Your task to perform on an android device: turn off javascript in the chrome app Image 0: 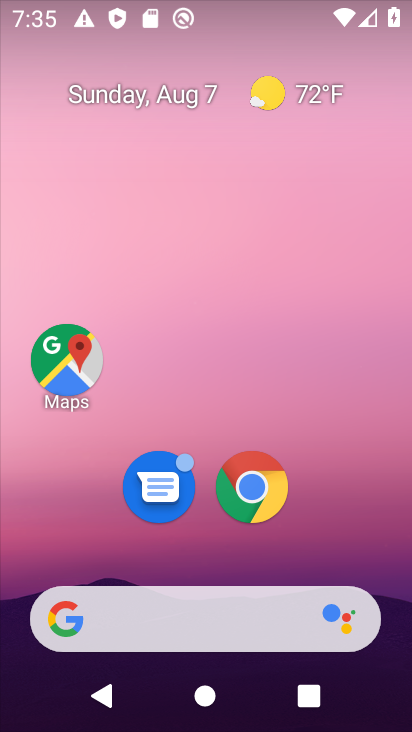
Step 0: click (260, 478)
Your task to perform on an android device: turn off javascript in the chrome app Image 1: 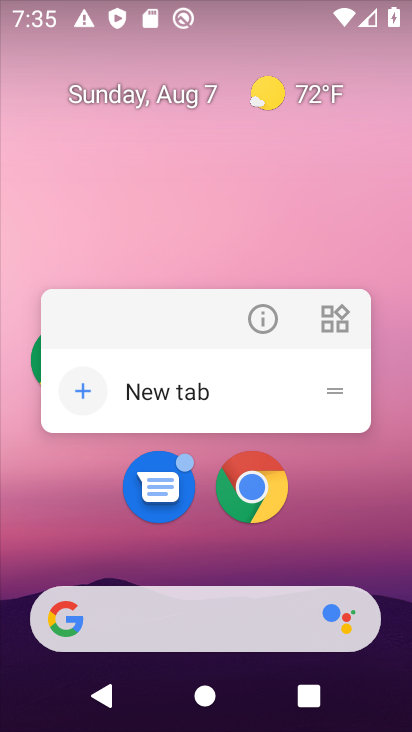
Step 1: click (251, 477)
Your task to perform on an android device: turn off javascript in the chrome app Image 2: 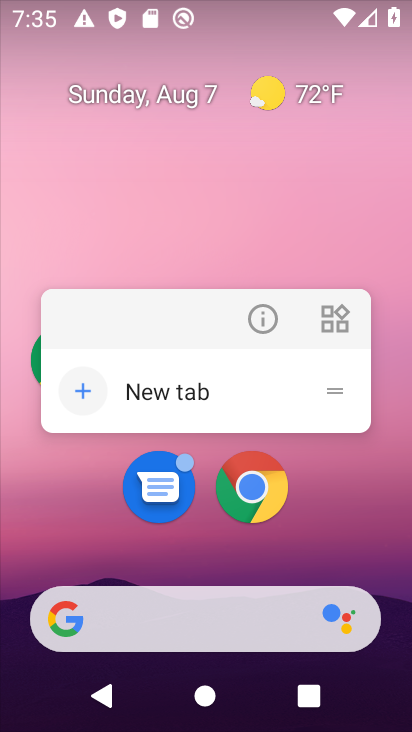
Step 2: click (251, 477)
Your task to perform on an android device: turn off javascript in the chrome app Image 3: 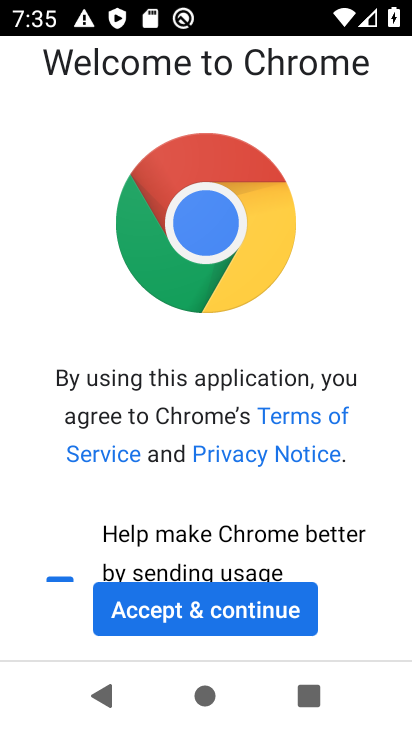
Step 3: click (195, 614)
Your task to perform on an android device: turn off javascript in the chrome app Image 4: 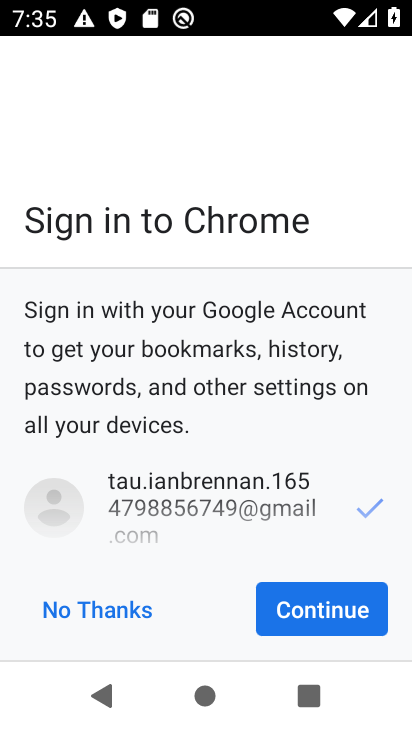
Step 4: click (297, 602)
Your task to perform on an android device: turn off javascript in the chrome app Image 5: 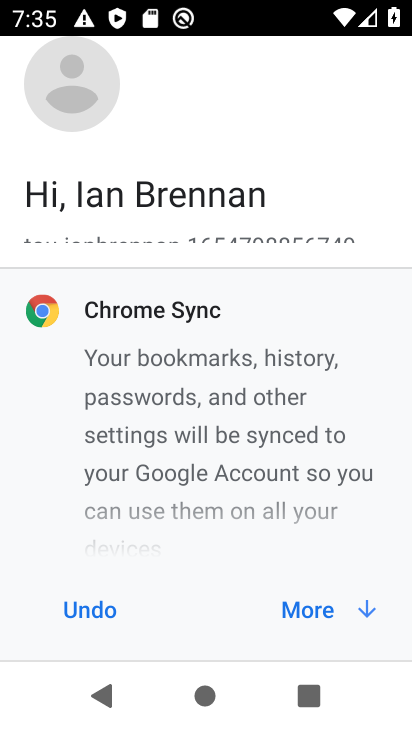
Step 5: click (325, 608)
Your task to perform on an android device: turn off javascript in the chrome app Image 6: 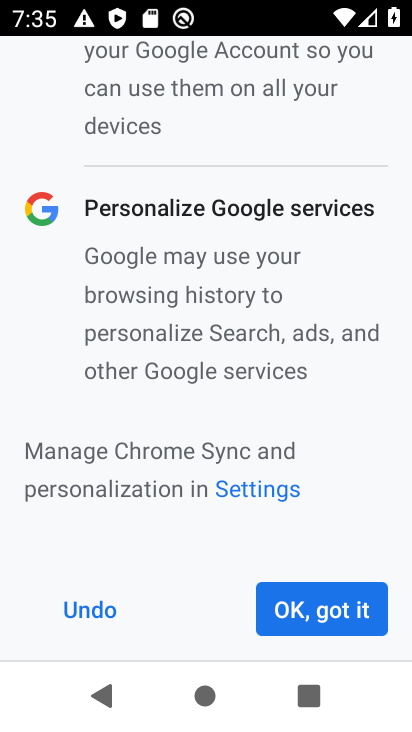
Step 6: click (350, 606)
Your task to perform on an android device: turn off javascript in the chrome app Image 7: 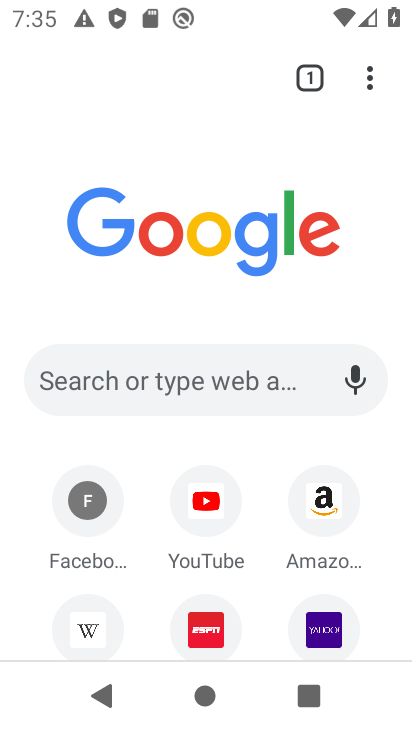
Step 7: click (372, 76)
Your task to perform on an android device: turn off javascript in the chrome app Image 8: 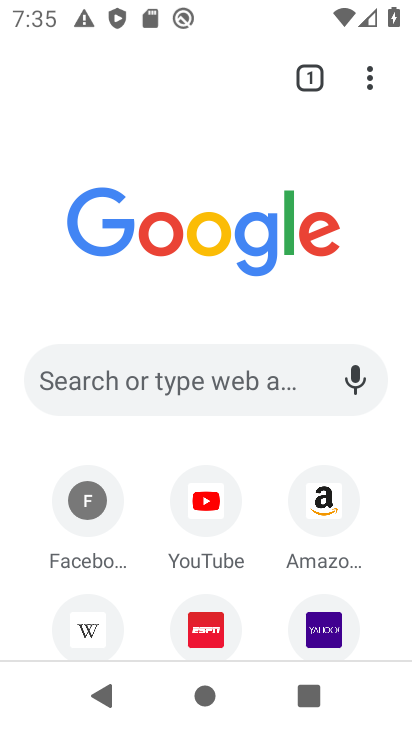
Step 8: click (367, 76)
Your task to perform on an android device: turn off javascript in the chrome app Image 9: 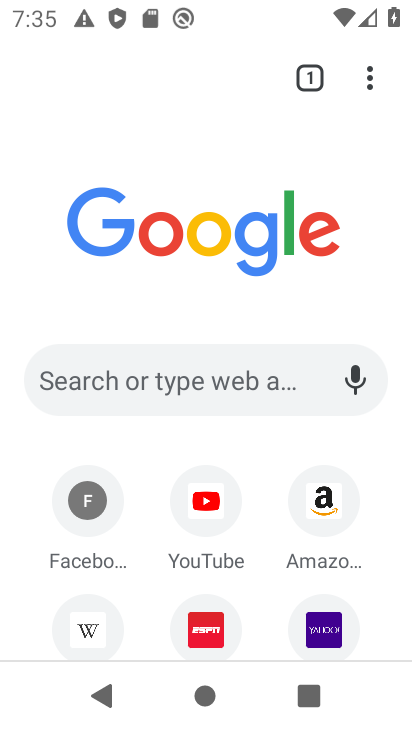
Step 9: click (371, 75)
Your task to perform on an android device: turn off javascript in the chrome app Image 10: 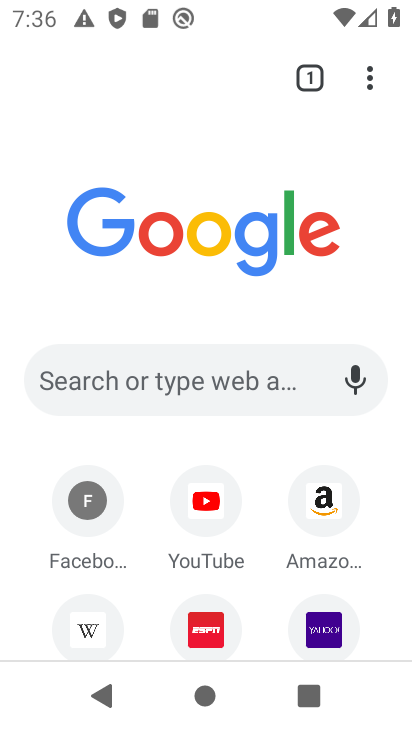
Step 10: click (371, 75)
Your task to perform on an android device: turn off javascript in the chrome app Image 11: 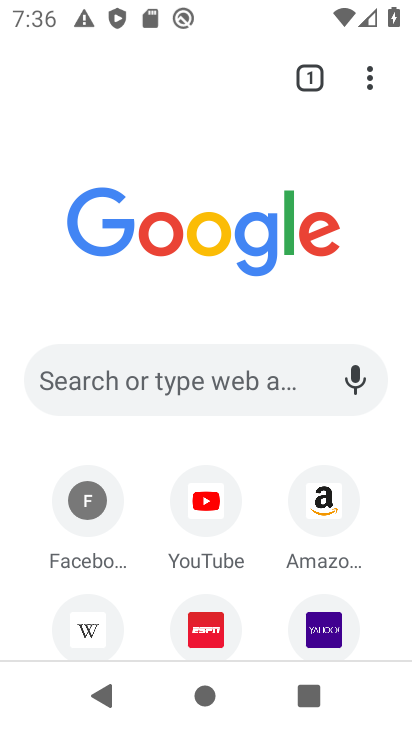
Step 11: click (371, 75)
Your task to perform on an android device: turn off javascript in the chrome app Image 12: 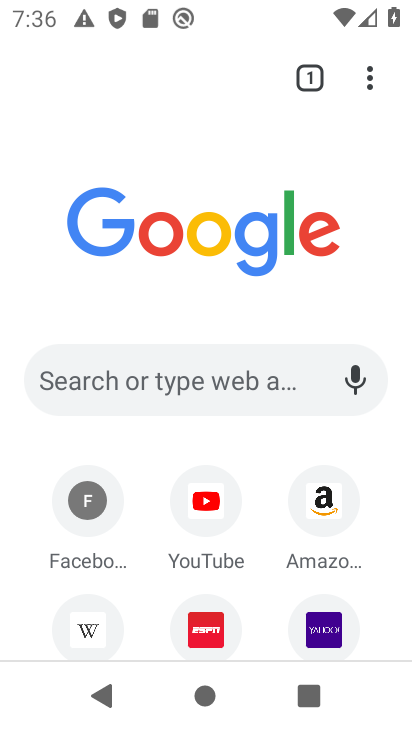
Step 12: click (371, 75)
Your task to perform on an android device: turn off javascript in the chrome app Image 13: 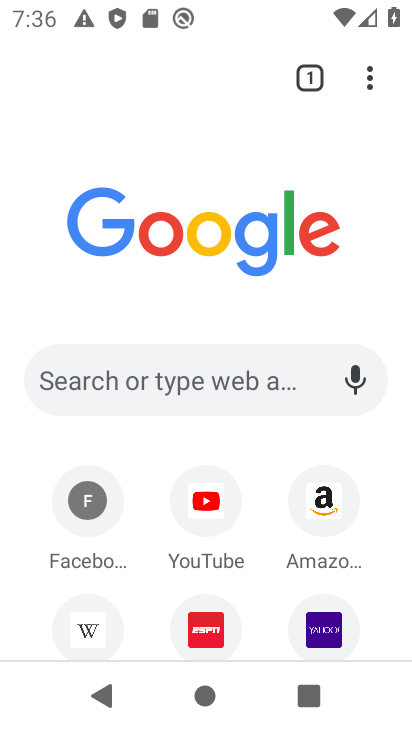
Step 13: click (371, 75)
Your task to perform on an android device: turn off javascript in the chrome app Image 14: 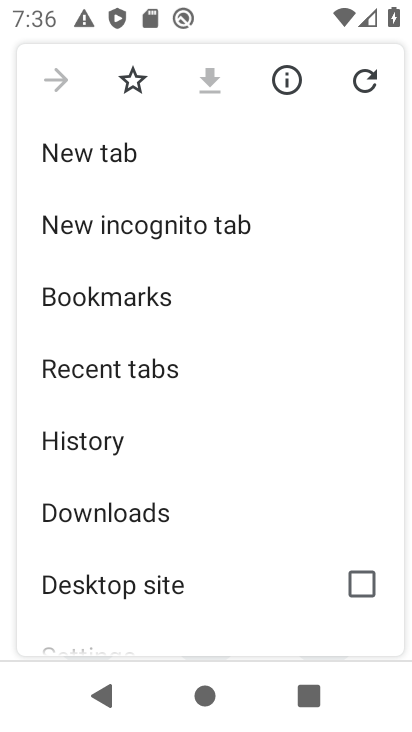
Step 14: drag from (255, 582) to (254, 211)
Your task to perform on an android device: turn off javascript in the chrome app Image 15: 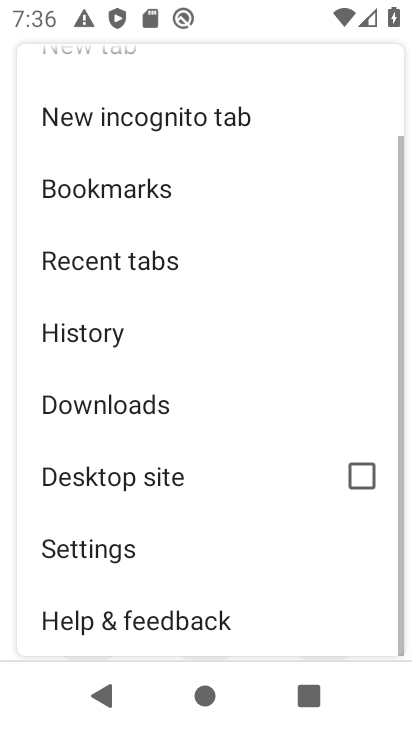
Step 15: click (89, 543)
Your task to perform on an android device: turn off javascript in the chrome app Image 16: 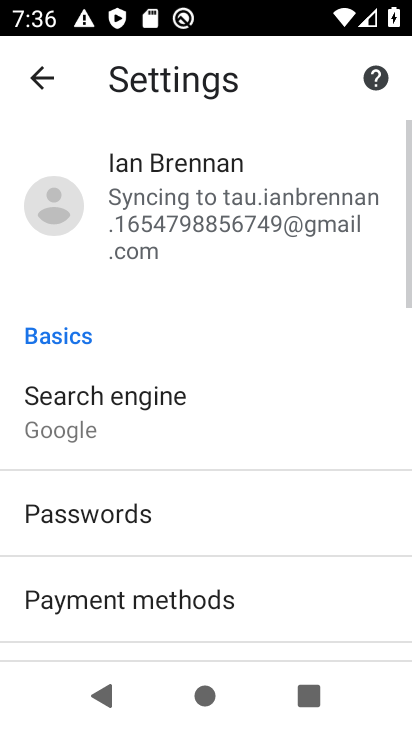
Step 16: drag from (302, 568) to (268, 163)
Your task to perform on an android device: turn off javascript in the chrome app Image 17: 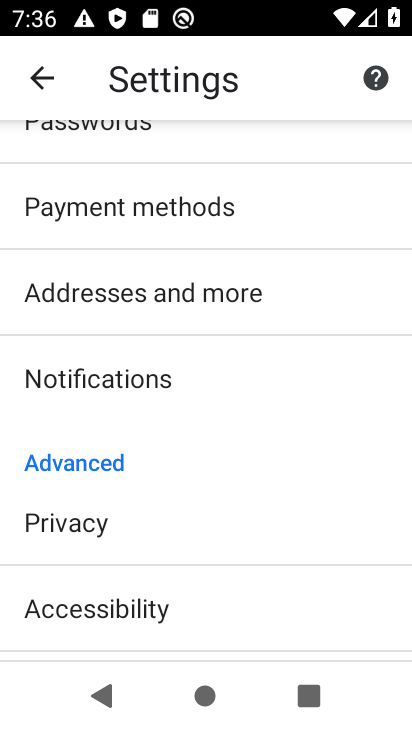
Step 17: drag from (233, 581) to (254, 272)
Your task to perform on an android device: turn off javascript in the chrome app Image 18: 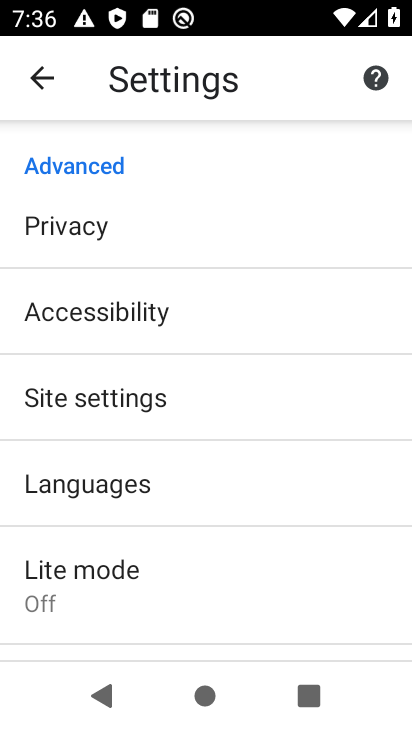
Step 18: click (141, 409)
Your task to perform on an android device: turn off javascript in the chrome app Image 19: 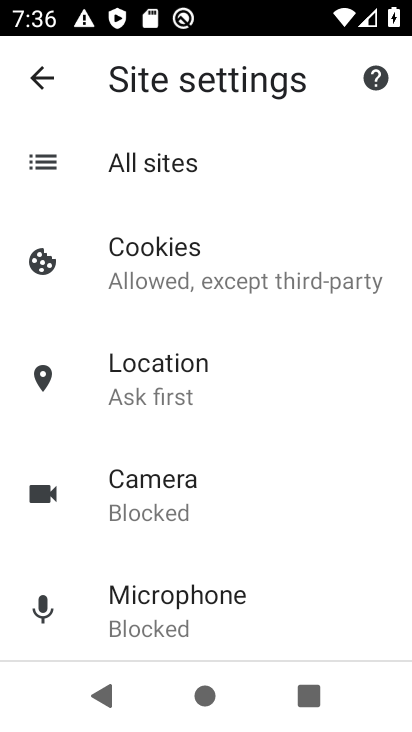
Step 19: drag from (293, 610) to (320, 258)
Your task to perform on an android device: turn off javascript in the chrome app Image 20: 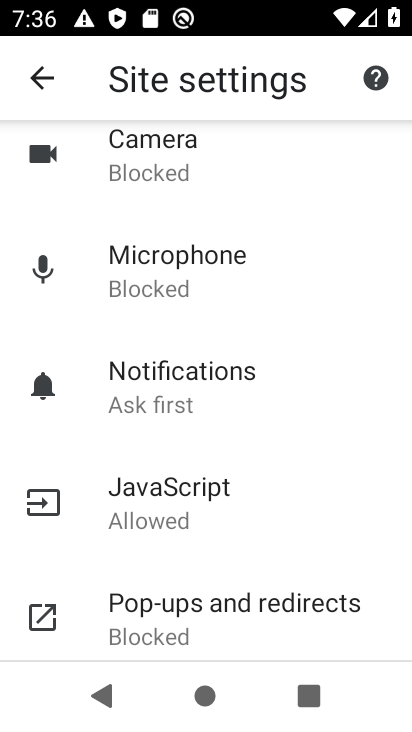
Step 20: click (147, 498)
Your task to perform on an android device: turn off javascript in the chrome app Image 21: 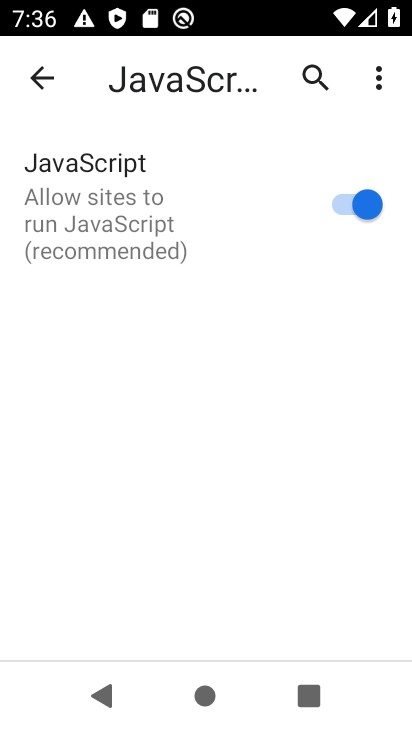
Step 21: click (346, 200)
Your task to perform on an android device: turn off javascript in the chrome app Image 22: 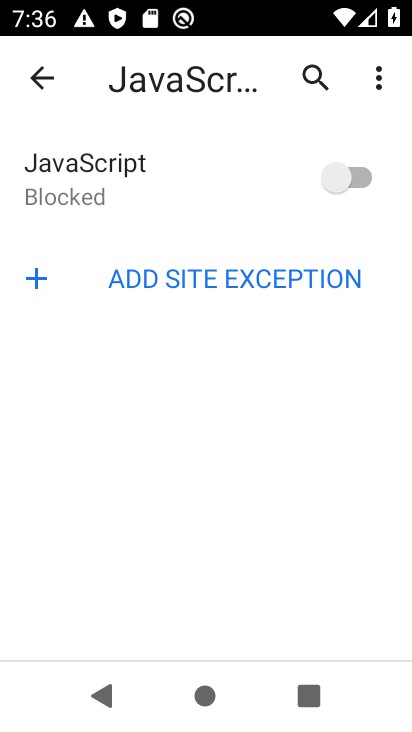
Step 22: task complete